Your task to perform on an android device: Open Youtube and go to the subscriptions tab Image 0: 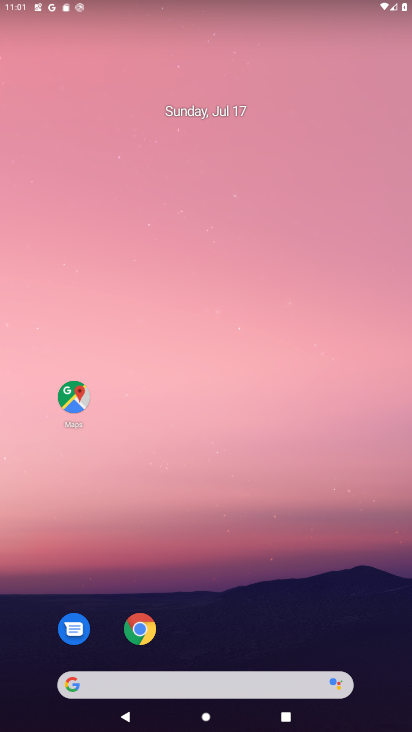
Step 0: drag from (210, 669) to (273, 164)
Your task to perform on an android device: Open Youtube and go to the subscriptions tab Image 1: 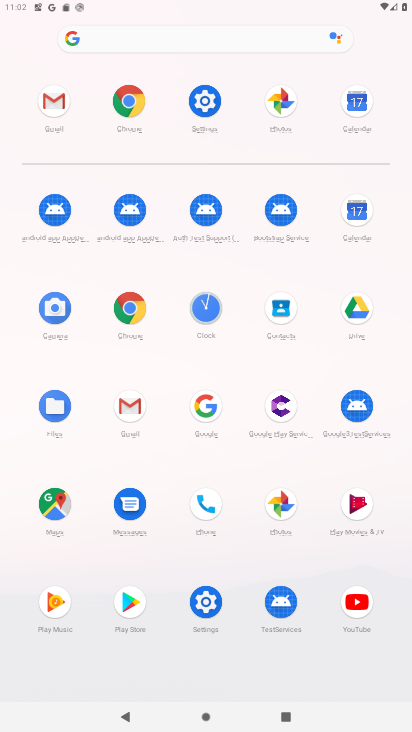
Step 1: click (359, 601)
Your task to perform on an android device: Open Youtube and go to the subscriptions tab Image 2: 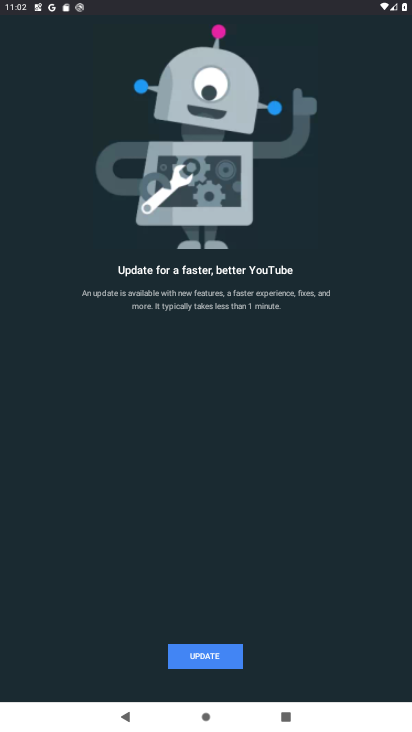
Step 2: click (218, 657)
Your task to perform on an android device: Open Youtube and go to the subscriptions tab Image 3: 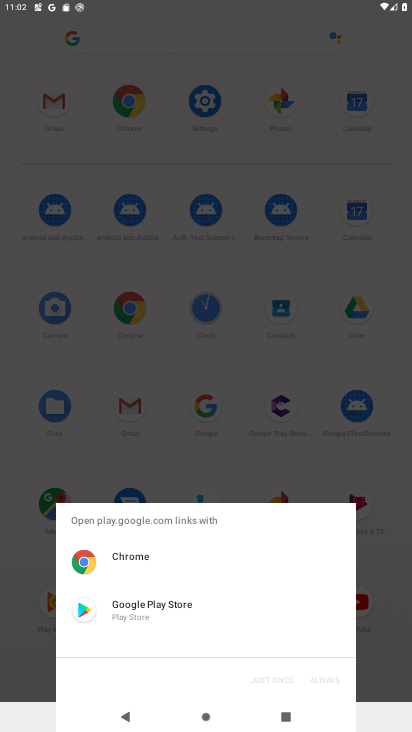
Step 3: click (169, 610)
Your task to perform on an android device: Open Youtube and go to the subscriptions tab Image 4: 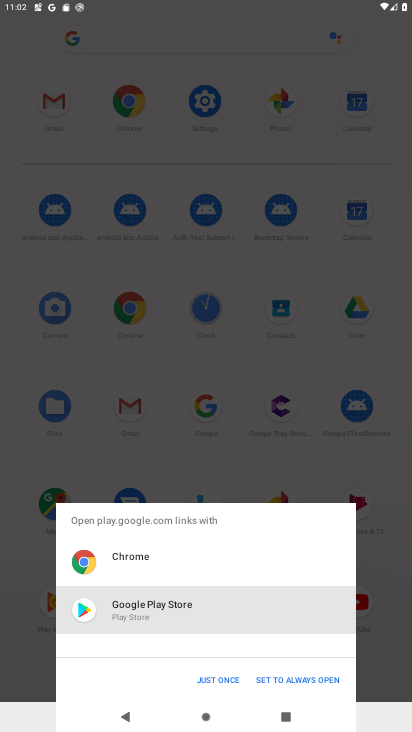
Step 4: click (223, 684)
Your task to perform on an android device: Open Youtube and go to the subscriptions tab Image 5: 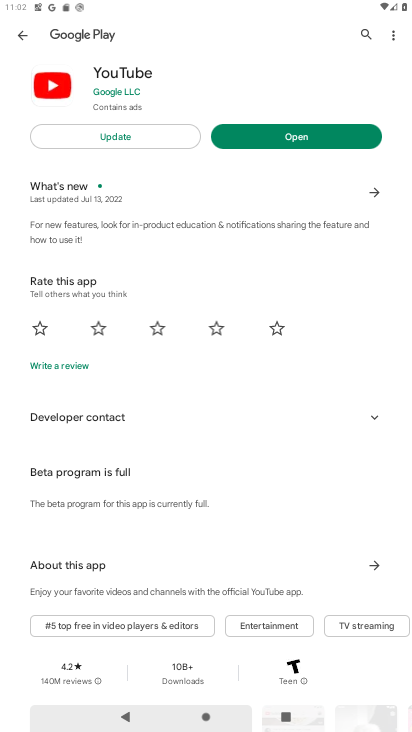
Step 5: click (123, 135)
Your task to perform on an android device: Open Youtube and go to the subscriptions tab Image 6: 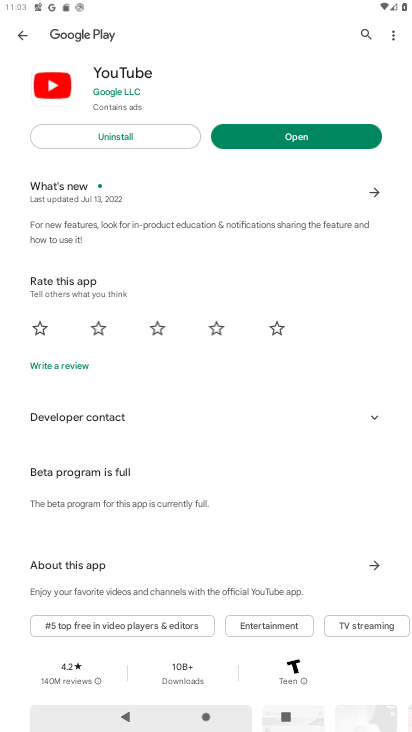
Step 6: click (303, 132)
Your task to perform on an android device: Open Youtube and go to the subscriptions tab Image 7: 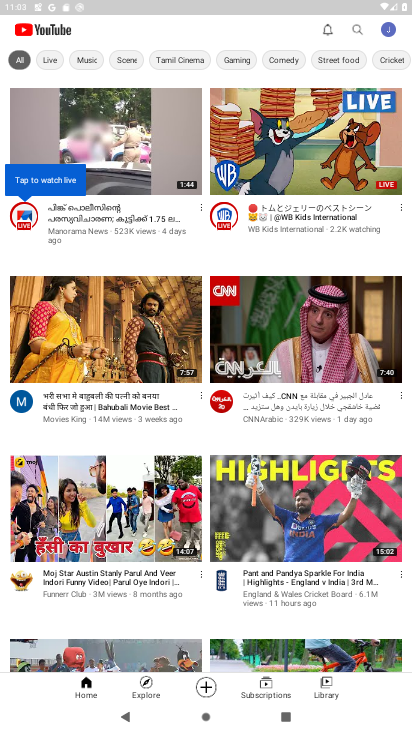
Step 7: click (273, 682)
Your task to perform on an android device: Open Youtube and go to the subscriptions tab Image 8: 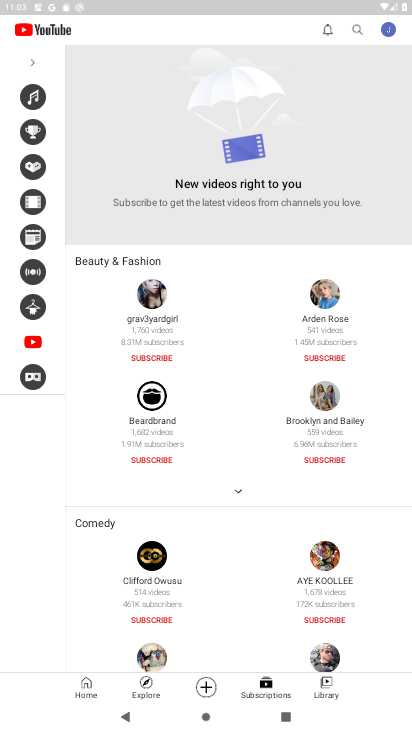
Step 8: task complete